Your task to perform on an android device: Search for Italian restaurants on Maps Image 0: 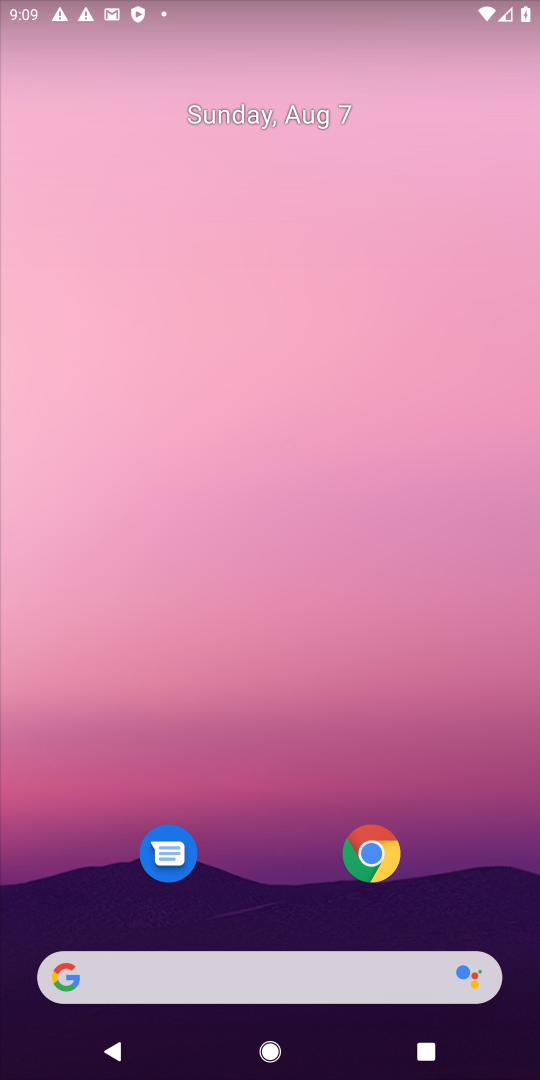
Step 0: press home button
Your task to perform on an android device: Search for Italian restaurants on Maps Image 1: 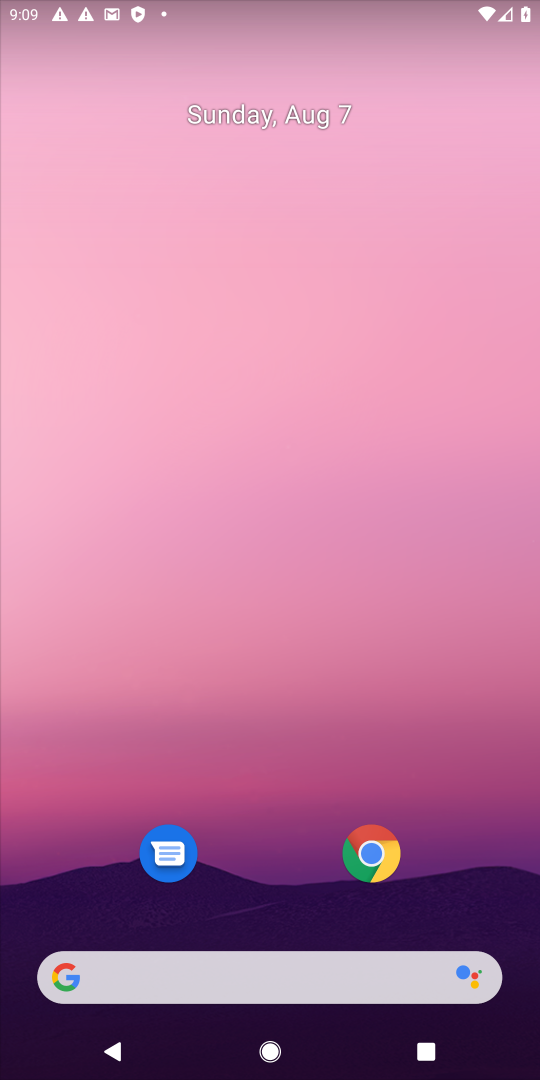
Step 1: drag from (477, 826) to (495, 334)
Your task to perform on an android device: Search for Italian restaurants on Maps Image 2: 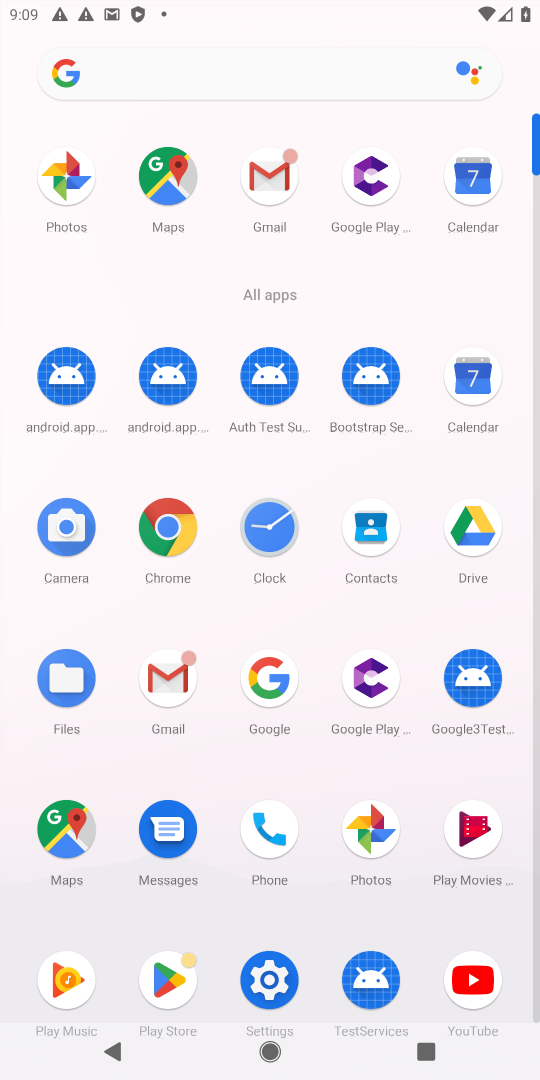
Step 2: click (69, 840)
Your task to perform on an android device: Search for Italian restaurants on Maps Image 3: 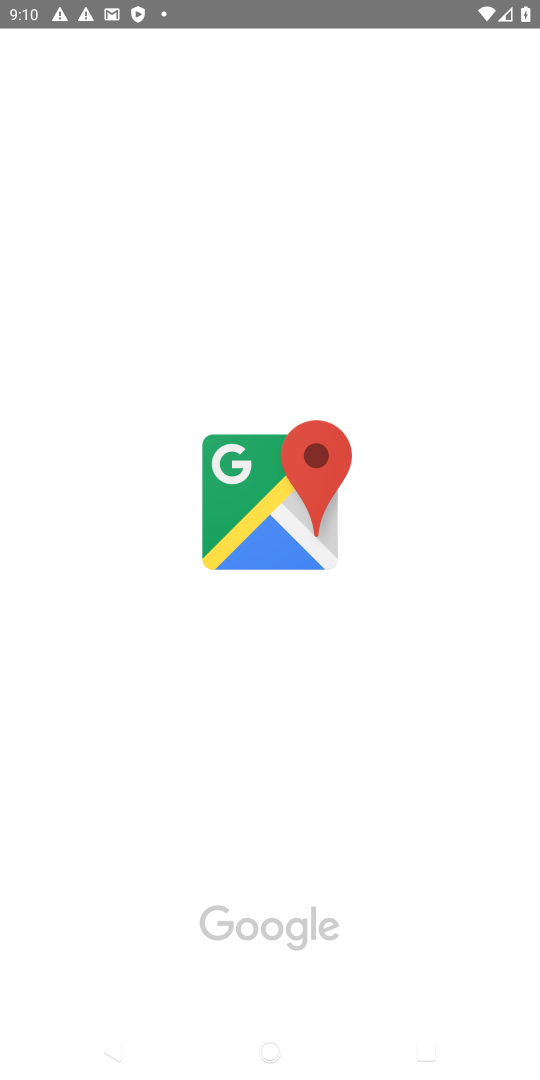
Step 3: task complete